Your task to perform on an android device: turn off wifi Image 0: 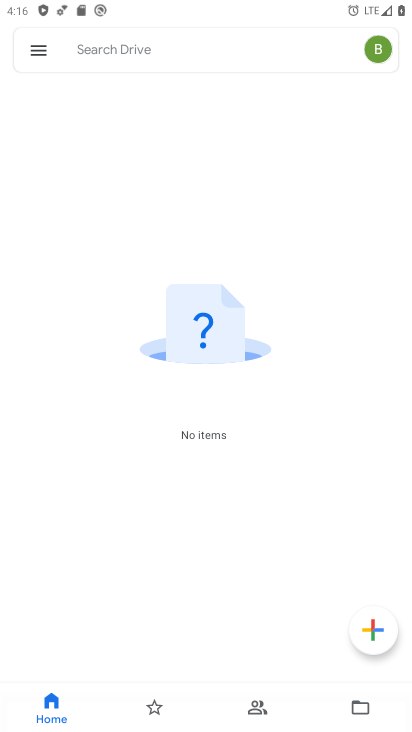
Step 0: press back button
Your task to perform on an android device: turn off wifi Image 1: 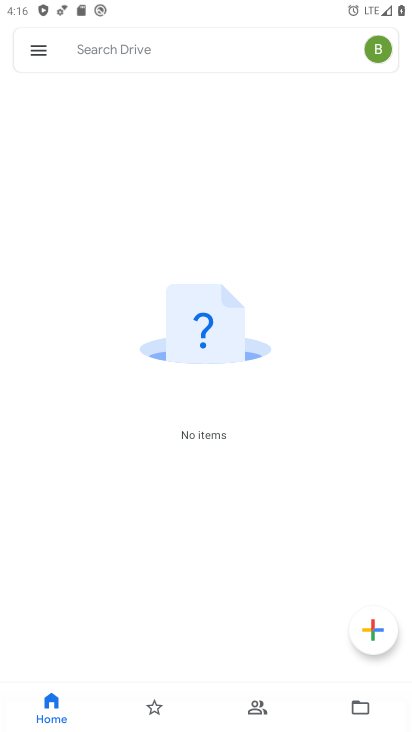
Step 1: press back button
Your task to perform on an android device: turn off wifi Image 2: 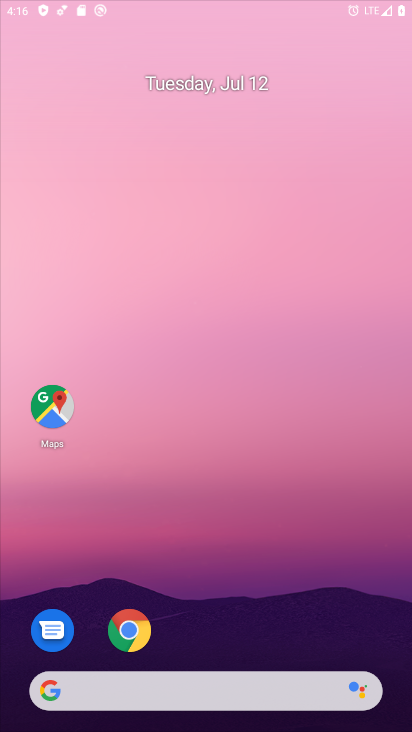
Step 2: press back button
Your task to perform on an android device: turn off wifi Image 3: 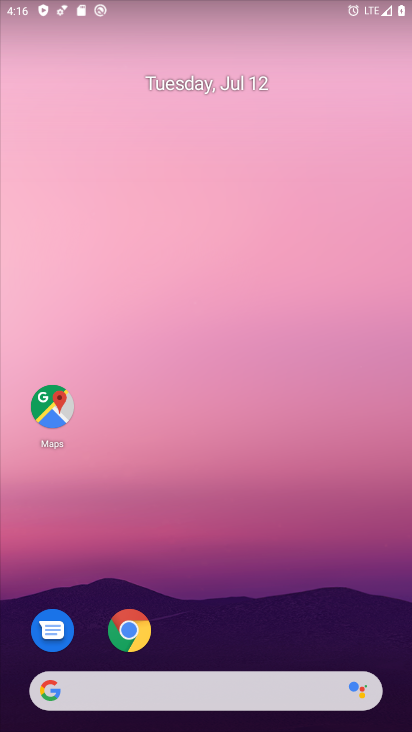
Step 3: press home button
Your task to perform on an android device: turn off wifi Image 4: 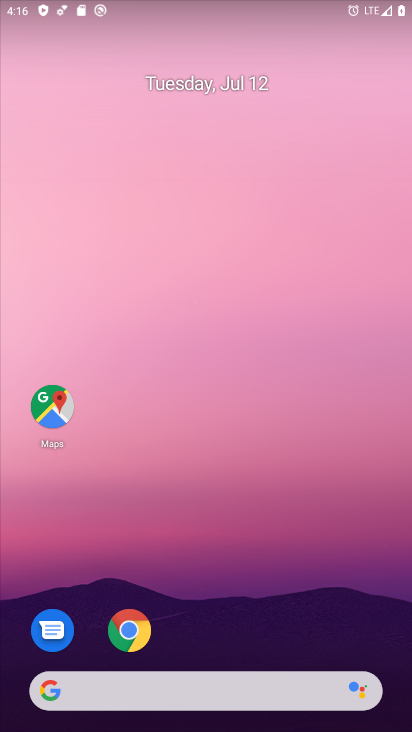
Step 4: drag from (281, 715) to (223, 244)
Your task to perform on an android device: turn off wifi Image 5: 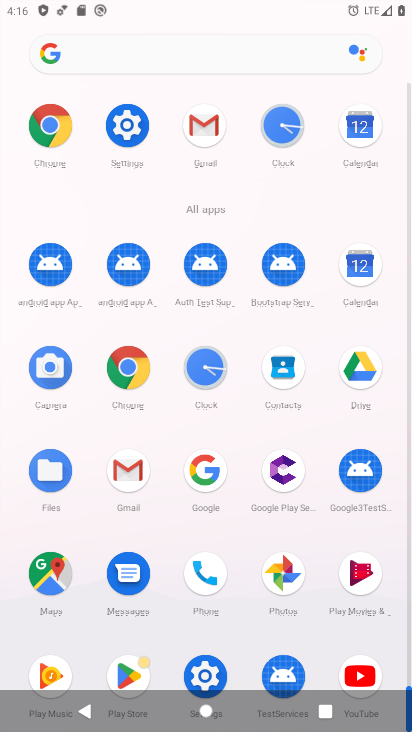
Step 5: click (139, 132)
Your task to perform on an android device: turn off wifi Image 6: 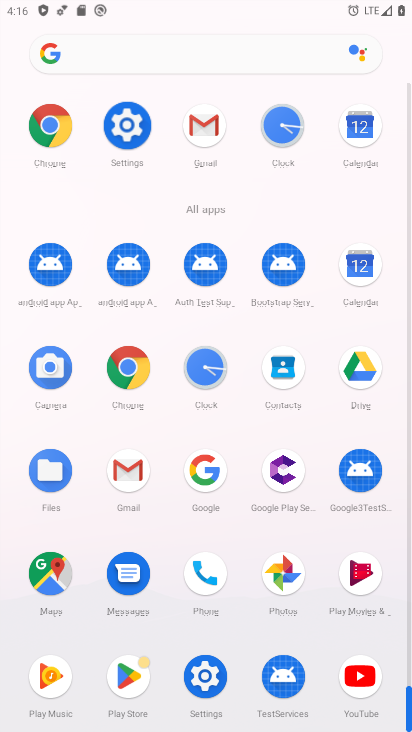
Step 6: click (131, 131)
Your task to perform on an android device: turn off wifi Image 7: 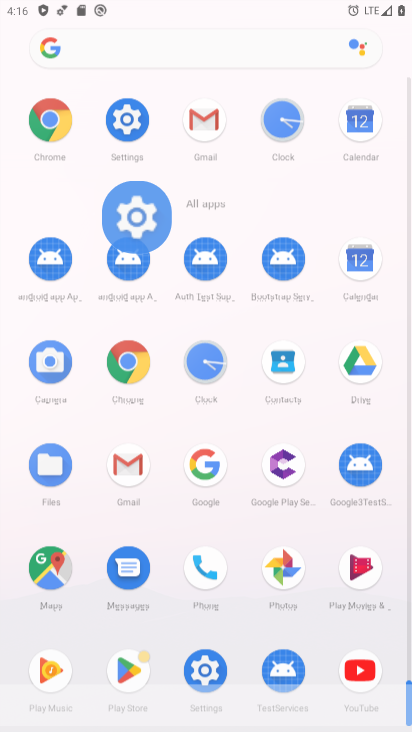
Step 7: click (131, 131)
Your task to perform on an android device: turn off wifi Image 8: 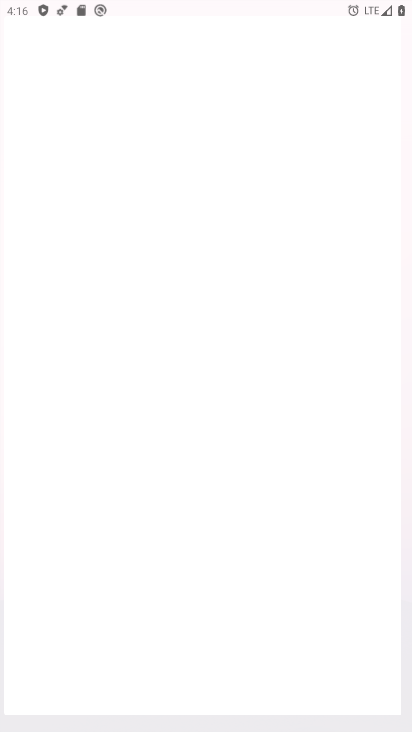
Step 8: click (135, 135)
Your task to perform on an android device: turn off wifi Image 9: 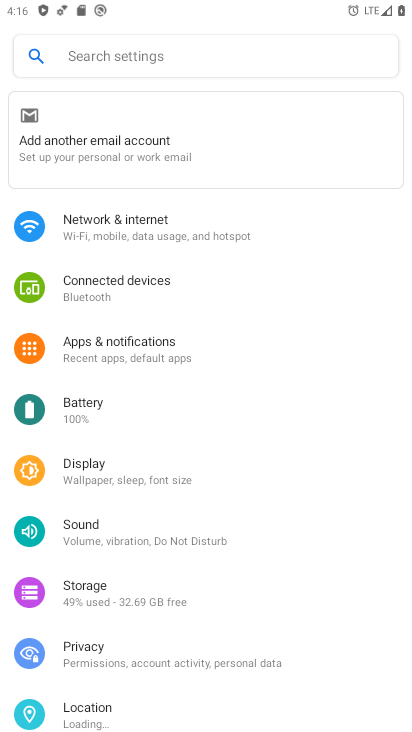
Step 9: click (120, 226)
Your task to perform on an android device: turn off wifi Image 10: 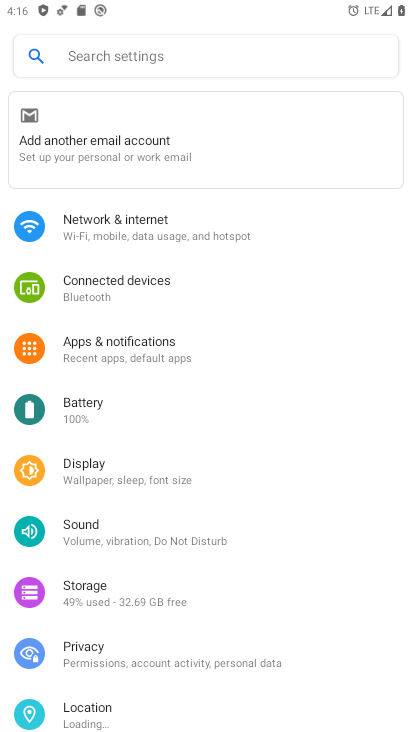
Step 10: click (129, 226)
Your task to perform on an android device: turn off wifi Image 11: 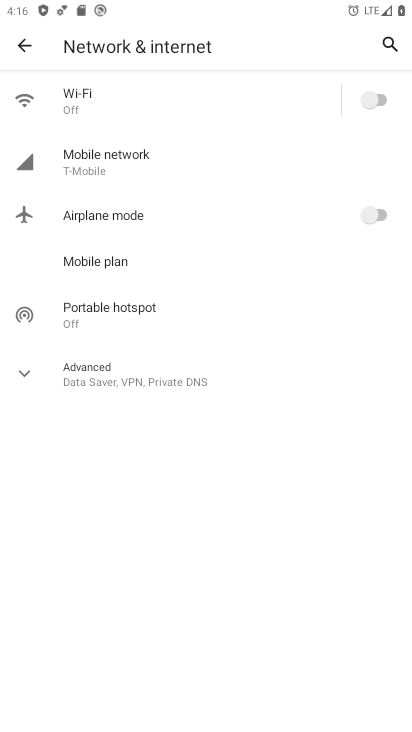
Step 11: click (371, 94)
Your task to perform on an android device: turn off wifi Image 12: 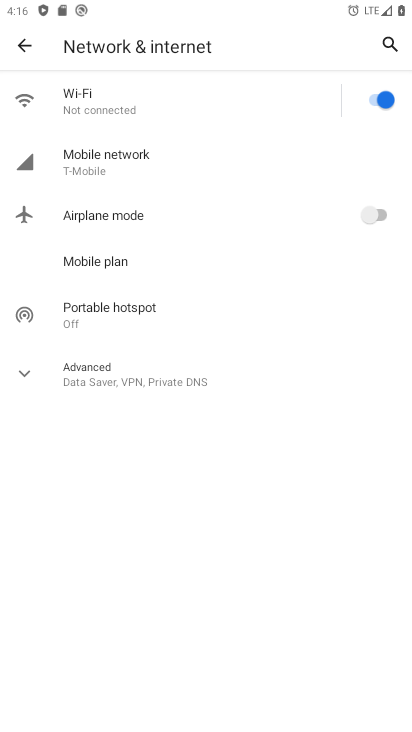
Step 12: task complete